Your task to perform on an android device: snooze an email in the gmail app Image 0: 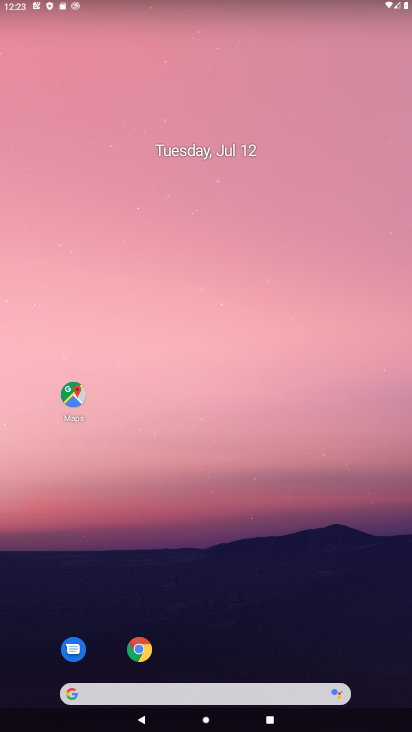
Step 0: drag from (359, 619) to (245, 39)
Your task to perform on an android device: snooze an email in the gmail app Image 1: 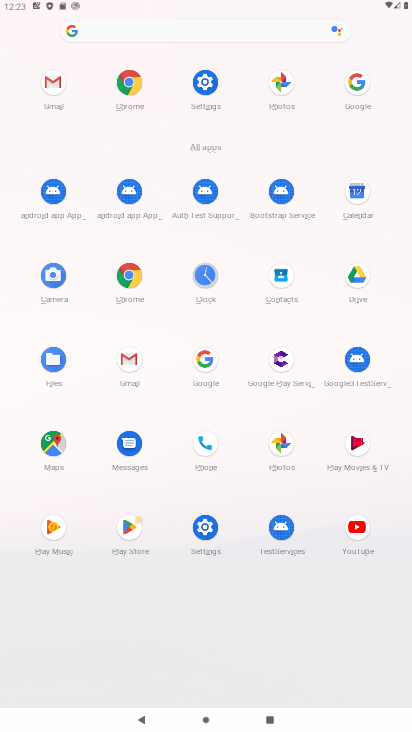
Step 1: click (131, 350)
Your task to perform on an android device: snooze an email in the gmail app Image 2: 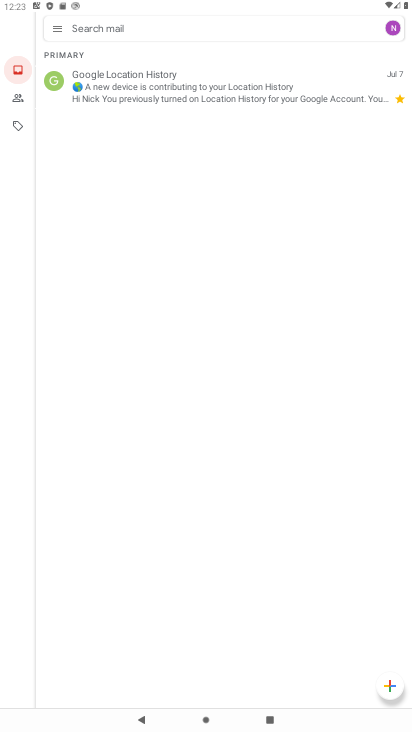
Step 2: click (238, 92)
Your task to perform on an android device: snooze an email in the gmail app Image 3: 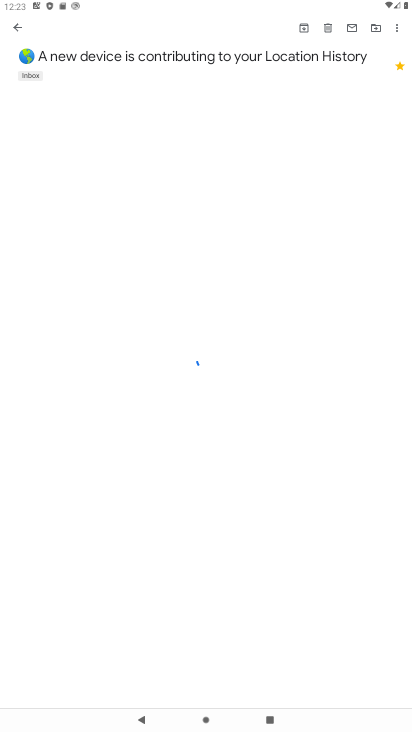
Step 3: click (394, 25)
Your task to perform on an android device: snooze an email in the gmail app Image 4: 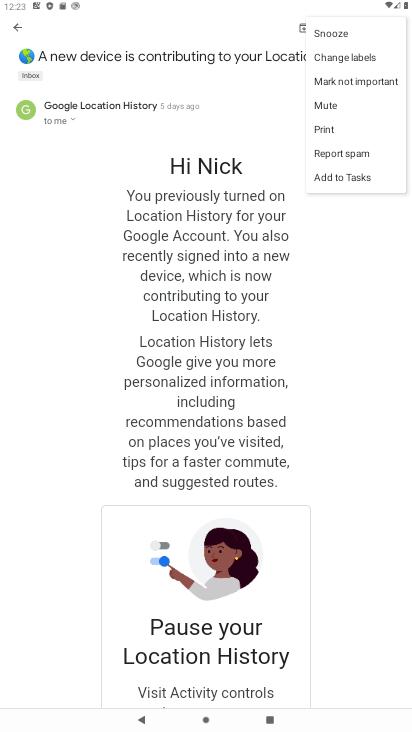
Step 4: click (359, 37)
Your task to perform on an android device: snooze an email in the gmail app Image 5: 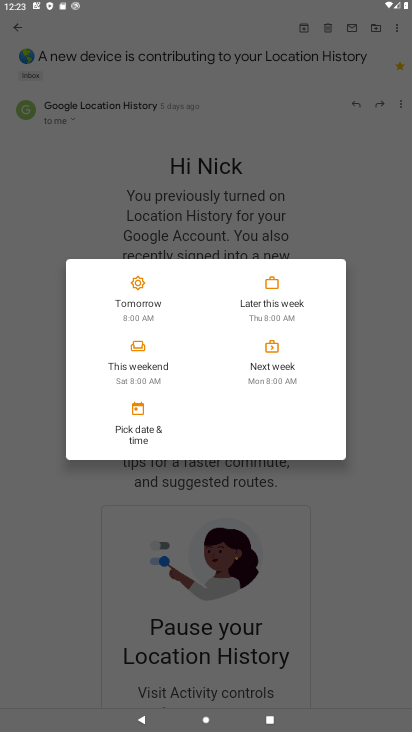
Step 5: click (252, 301)
Your task to perform on an android device: snooze an email in the gmail app Image 6: 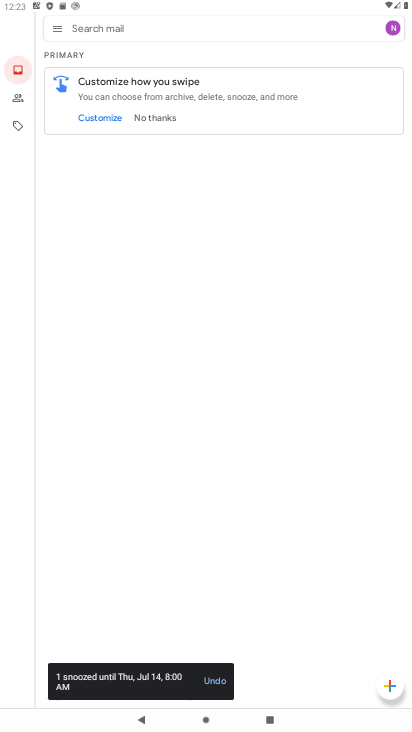
Step 6: task complete